Your task to perform on an android device: change notifications settings Image 0: 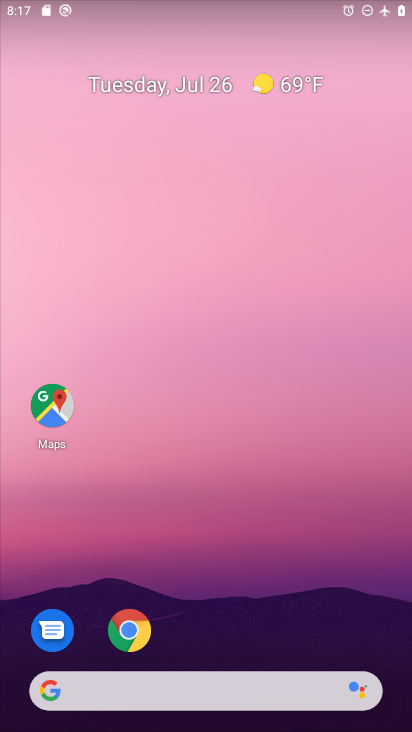
Step 0: drag from (235, 594) to (231, 174)
Your task to perform on an android device: change notifications settings Image 1: 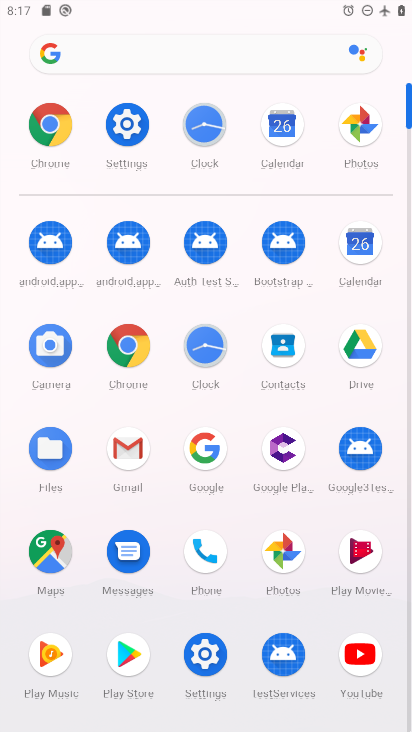
Step 1: click (206, 673)
Your task to perform on an android device: change notifications settings Image 2: 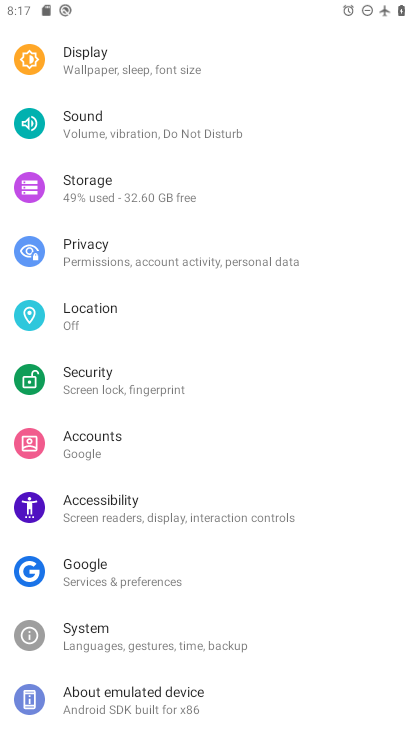
Step 2: drag from (219, 151) to (230, 598)
Your task to perform on an android device: change notifications settings Image 3: 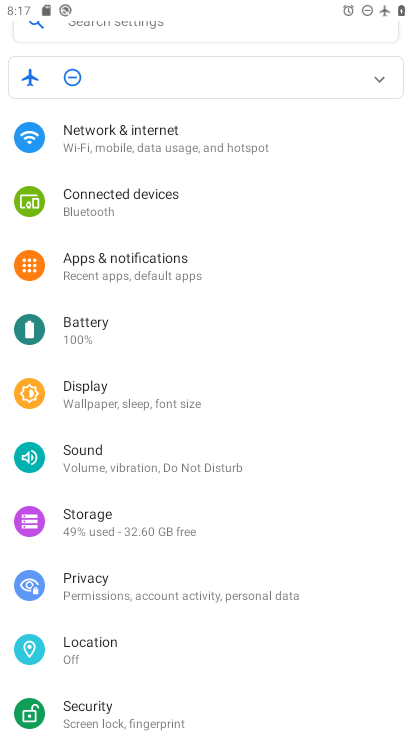
Step 3: click (173, 276)
Your task to perform on an android device: change notifications settings Image 4: 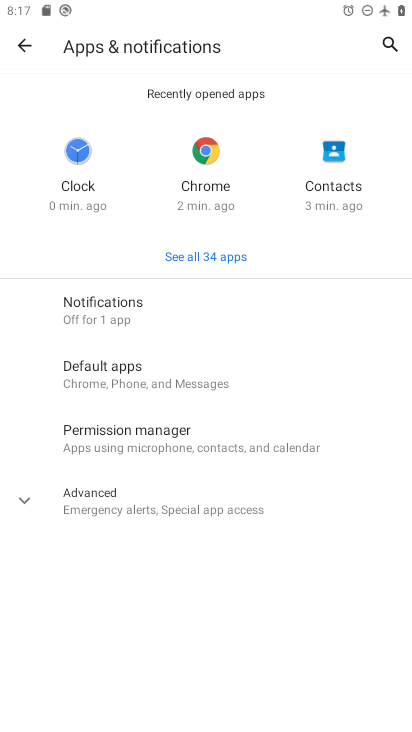
Step 4: click (213, 313)
Your task to perform on an android device: change notifications settings Image 5: 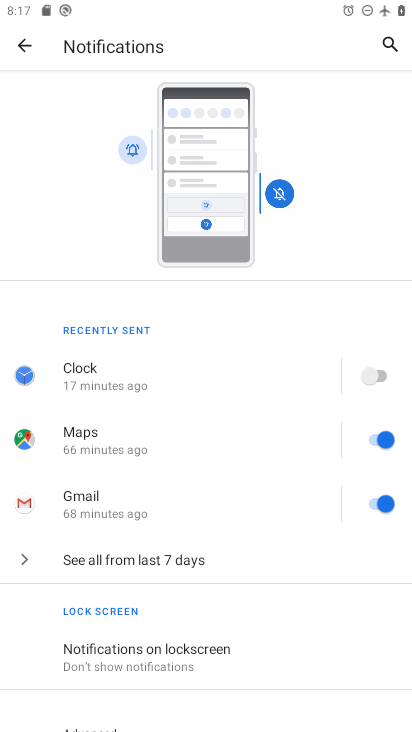
Step 5: click (371, 377)
Your task to perform on an android device: change notifications settings Image 6: 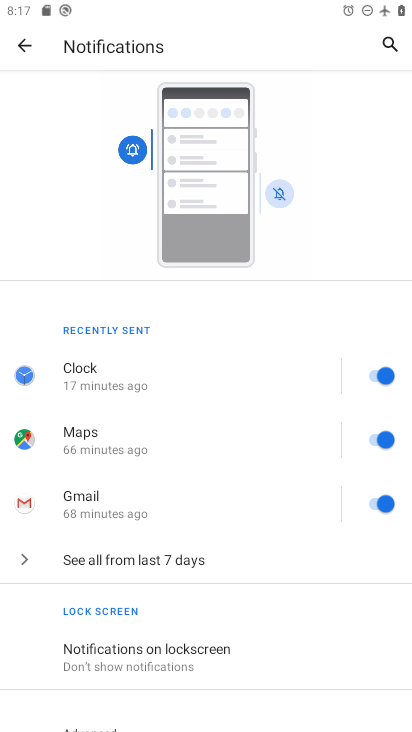
Step 6: task complete